Your task to perform on an android device: Search for pizza restaurants on Maps Image 0: 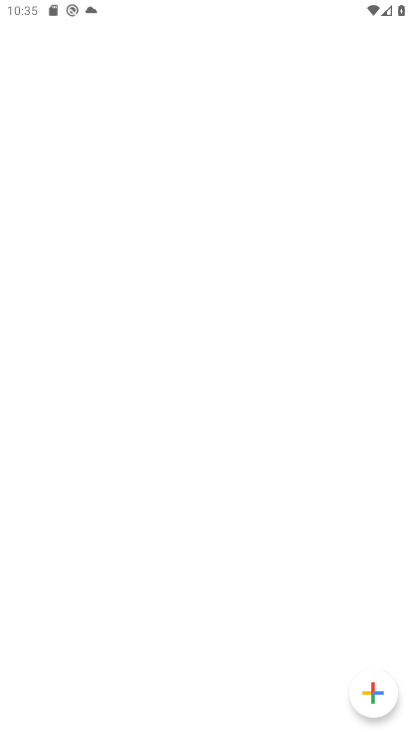
Step 0: click (215, 662)
Your task to perform on an android device: Search for pizza restaurants on Maps Image 1: 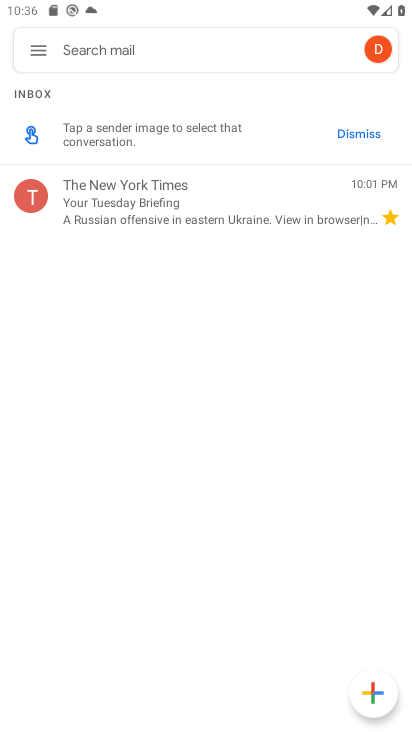
Step 1: press home button
Your task to perform on an android device: Search for pizza restaurants on Maps Image 2: 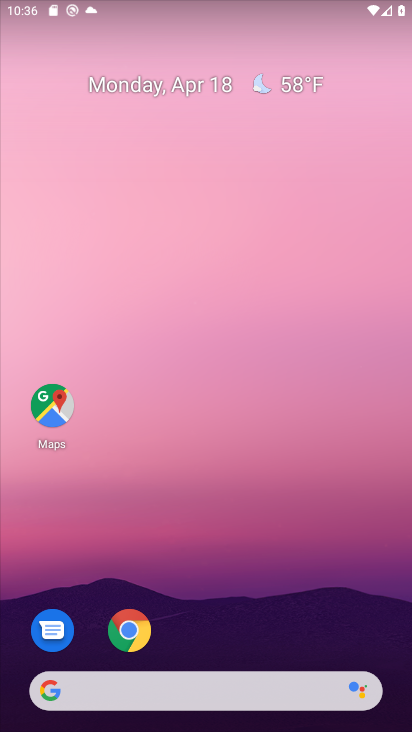
Step 2: drag from (210, 673) to (109, 26)
Your task to perform on an android device: Search for pizza restaurants on Maps Image 3: 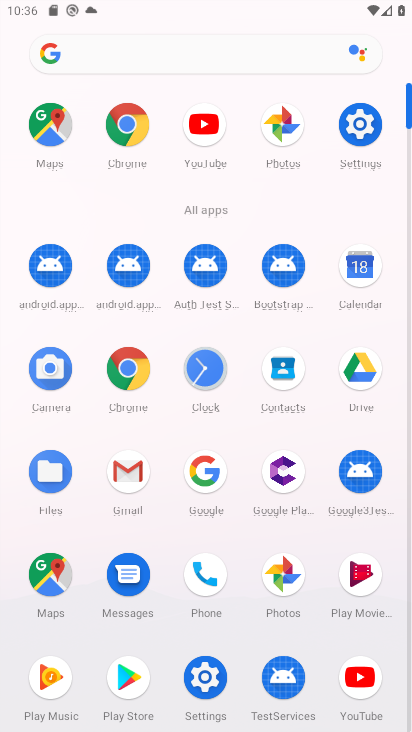
Step 3: click (51, 582)
Your task to perform on an android device: Search for pizza restaurants on Maps Image 4: 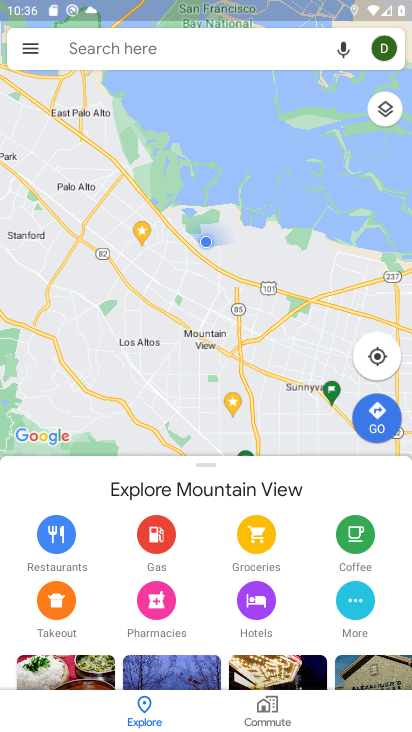
Step 4: click (89, 44)
Your task to perform on an android device: Search for pizza restaurants on Maps Image 5: 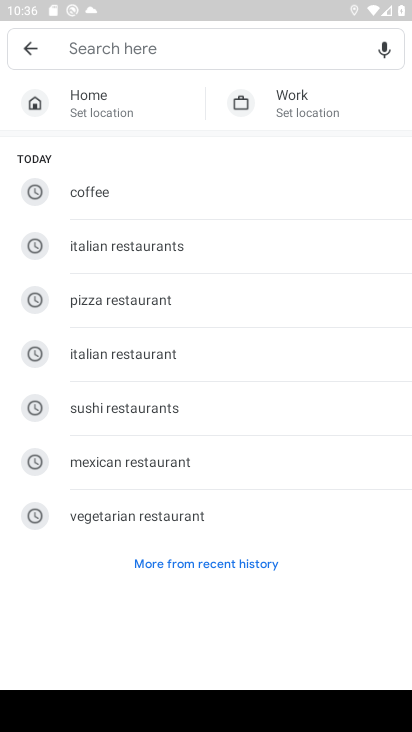
Step 5: click (122, 291)
Your task to perform on an android device: Search for pizza restaurants on Maps Image 6: 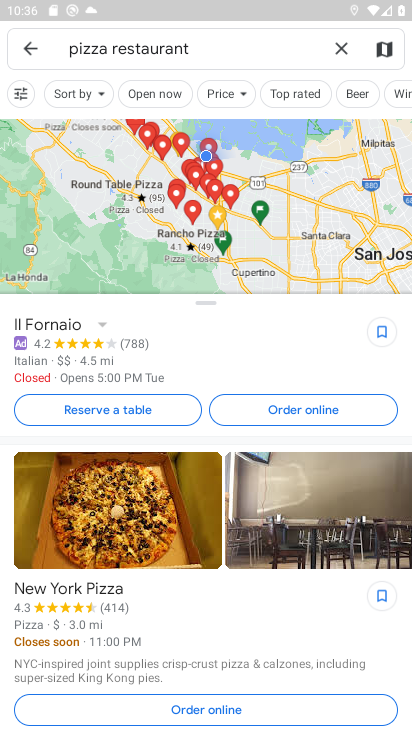
Step 6: task complete